Your task to perform on an android device: Search for razer naga on newegg, select the first entry, and add it to the cart. Image 0: 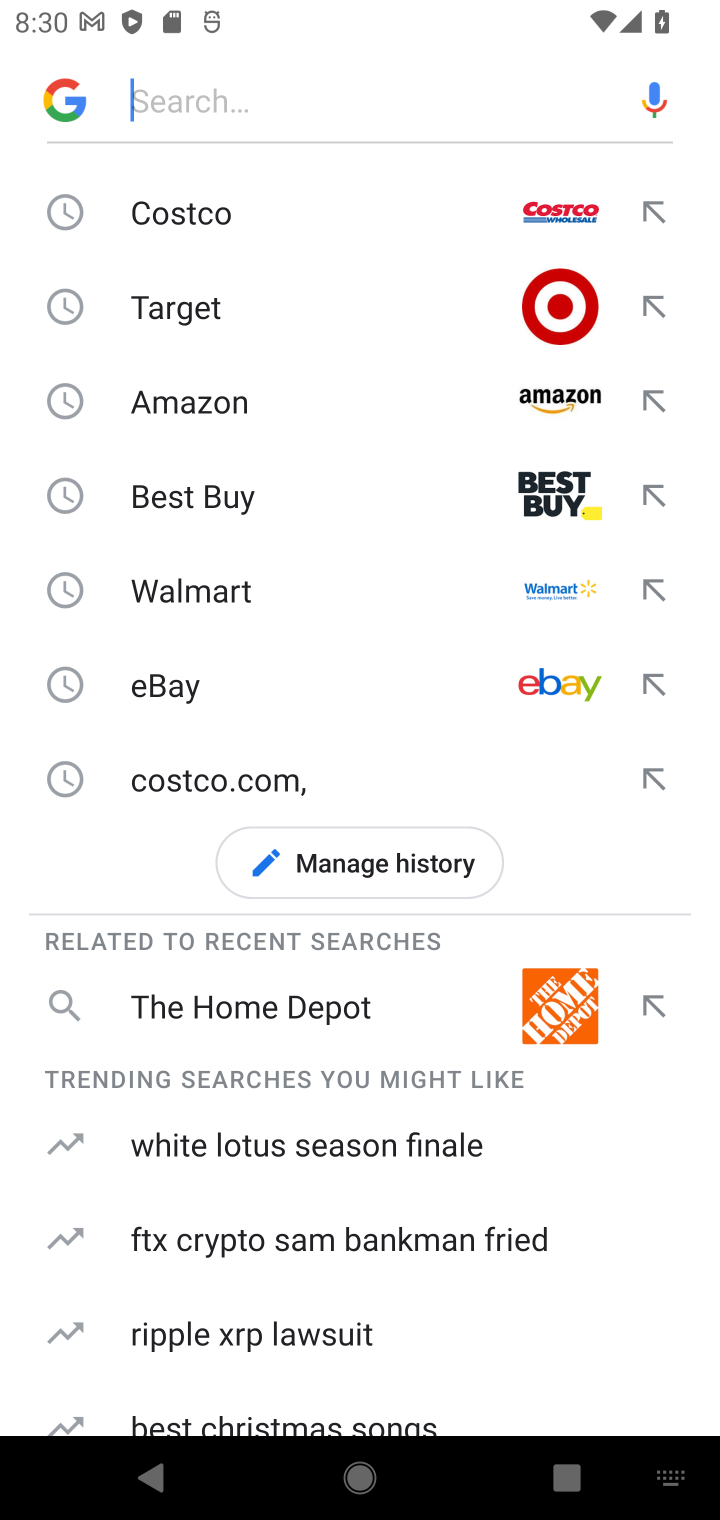
Step 0: type "newegg"
Your task to perform on an android device: Search for razer naga on newegg, select the first entry, and add it to the cart. Image 1: 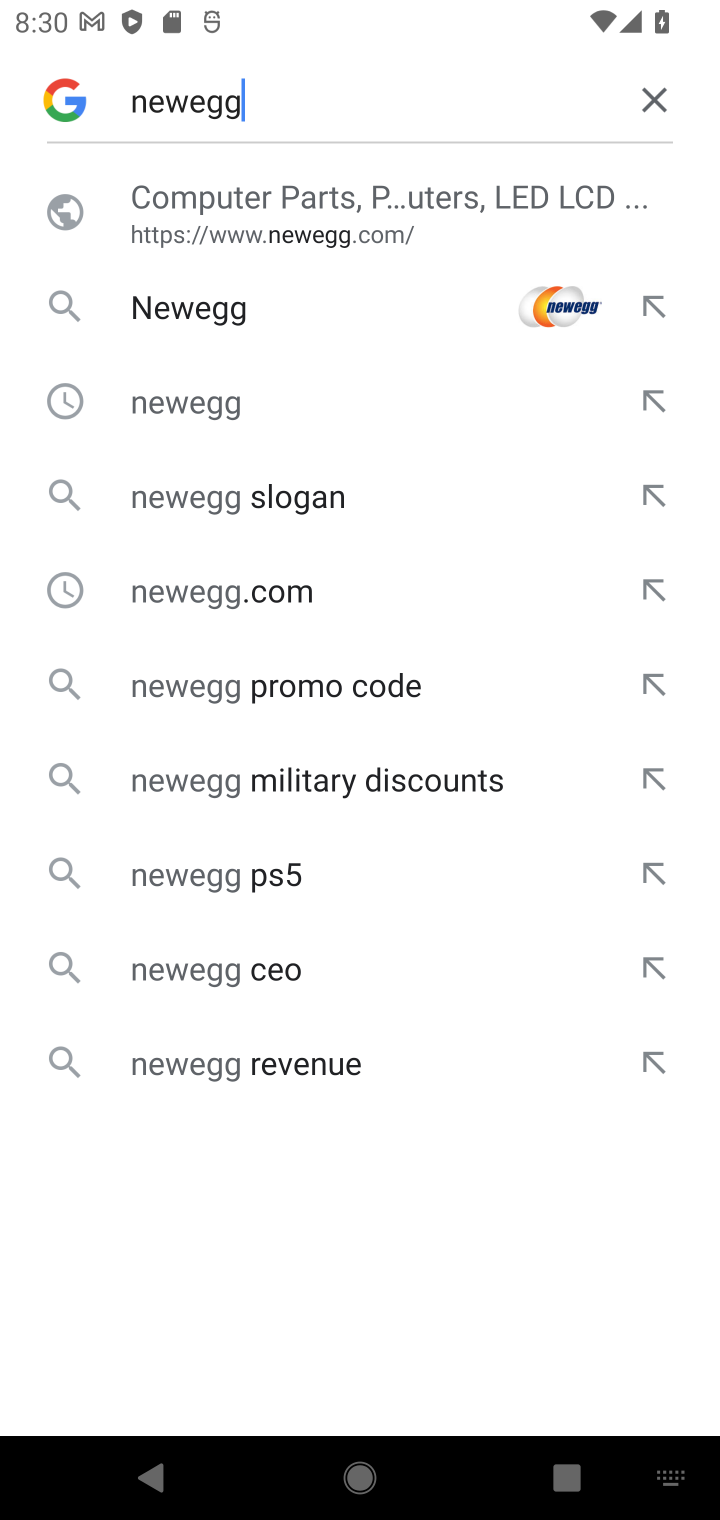
Step 1: click (229, 205)
Your task to perform on an android device: Search for razer naga on newegg, select the first entry, and add it to the cart. Image 2: 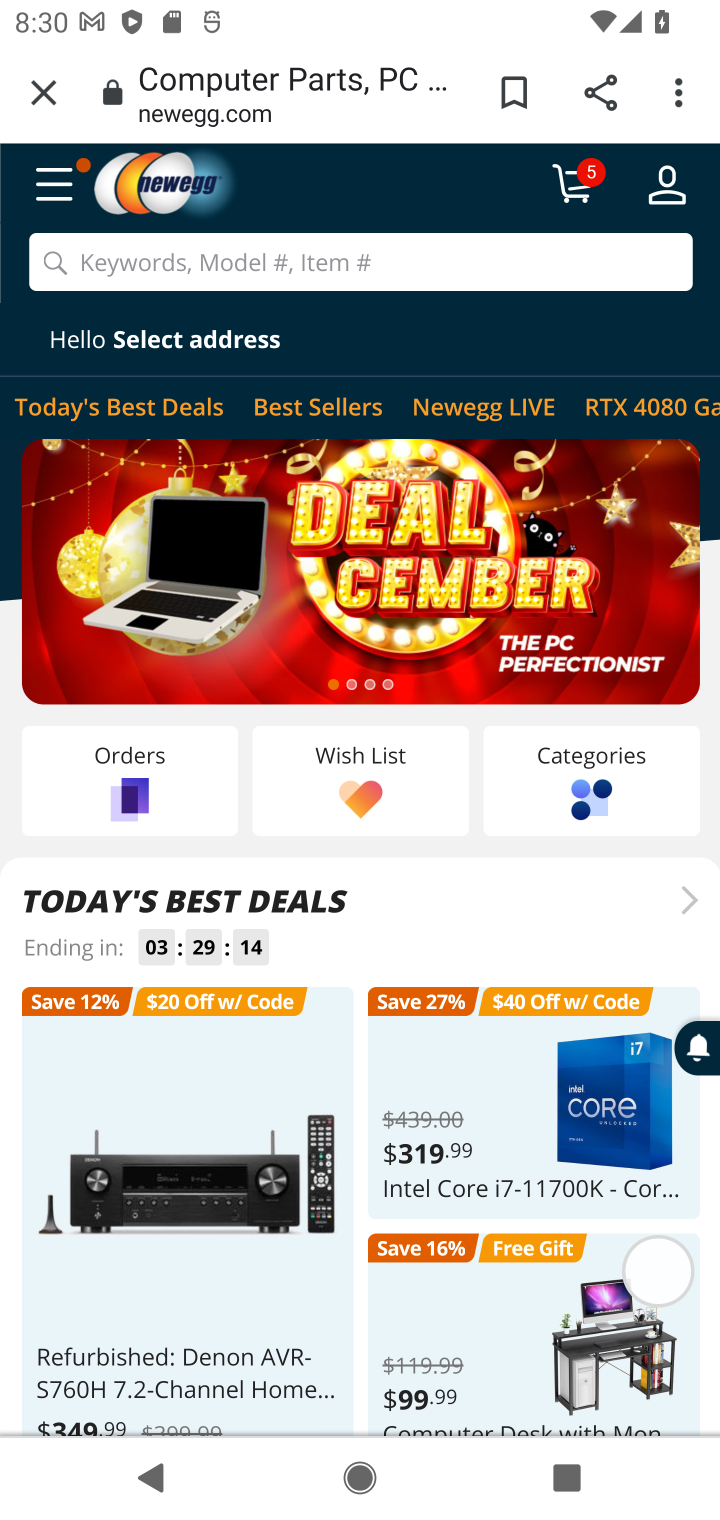
Step 2: click (161, 267)
Your task to perform on an android device: Search for razer naga on newegg, select the first entry, and add it to the cart. Image 3: 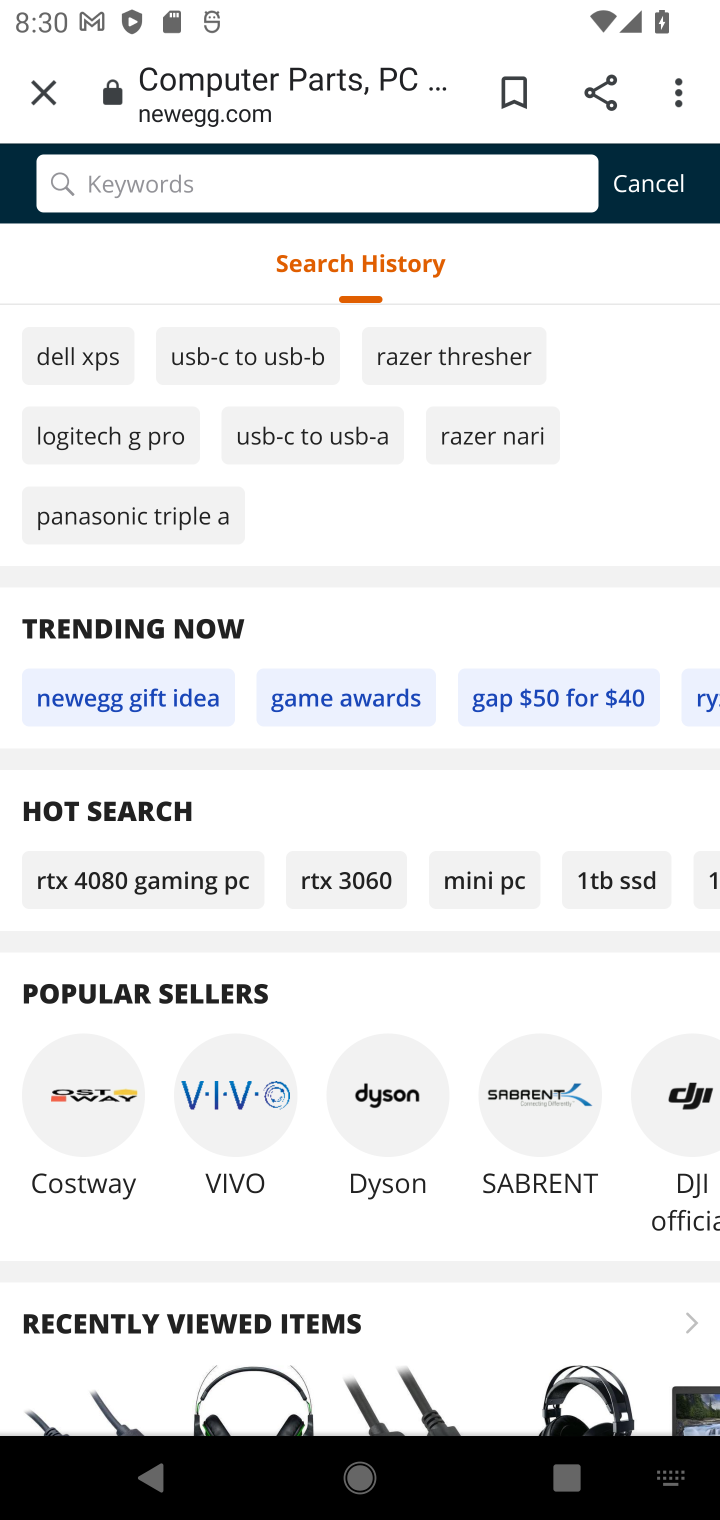
Step 3: type "razer naga"
Your task to perform on an android device: Search for razer naga on newegg, select the first entry, and add it to the cart. Image 4: 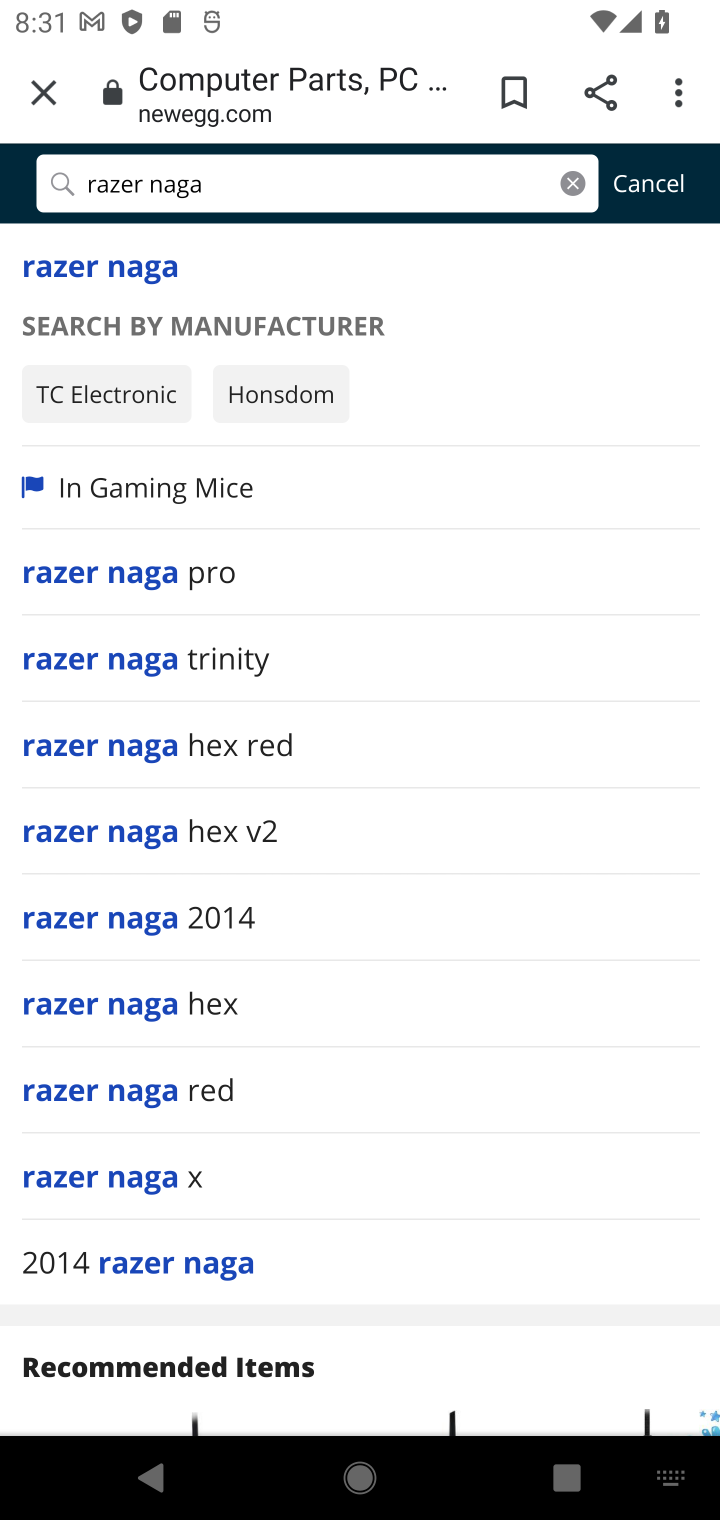
Step 4: click (18, 283)
Your task to perform on an android device: Search for razer naga on newegg, select the first entry, and add it to the cart. Image 5: 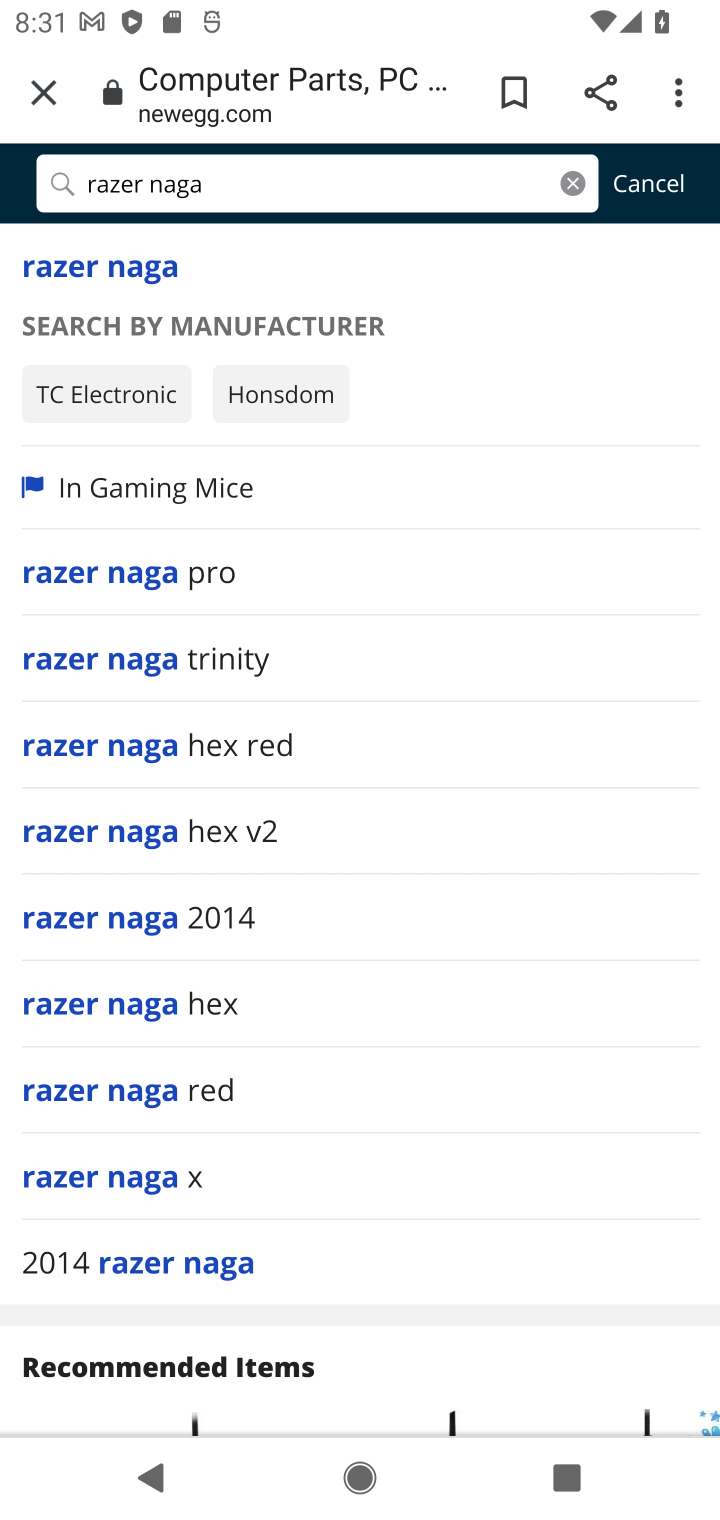
Step 5: task complete